Your task to perform on an android device: What's the weather today? Image 0: 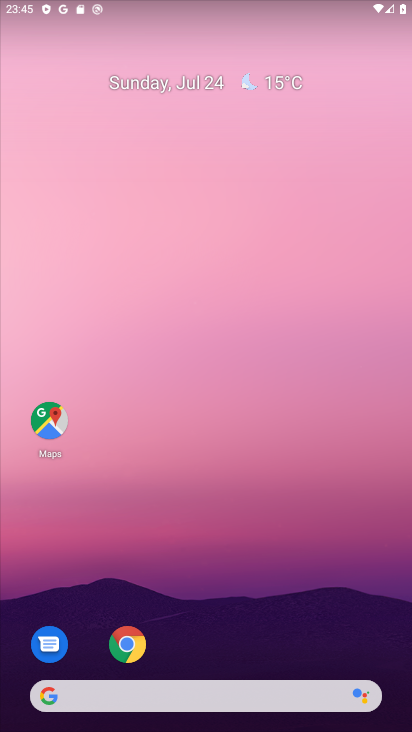
Step 0: drag from (203, 726) to (225, 171)
Your task to perform on an android device: What's the weather today? Image 1: 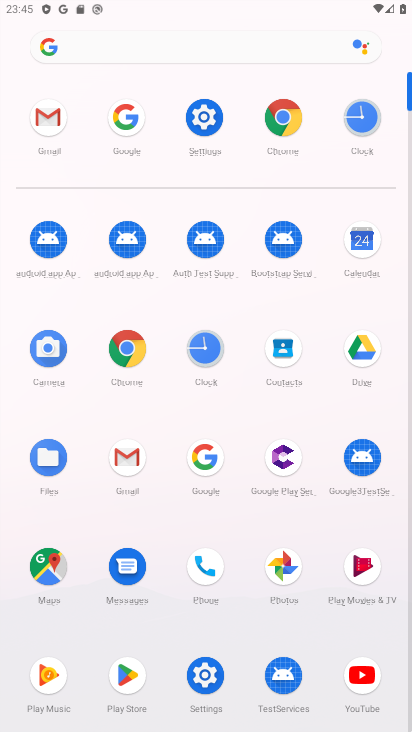
Step 1: click (212, 458)
Your task to perform on an android device: What's the weather today? Image 2: 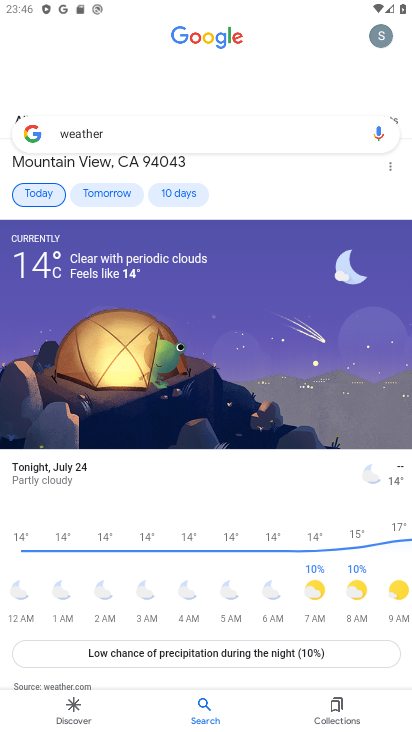
Step 2: click (39, 192)
Your task to perform on an android device: What's the weather today? Image 3: 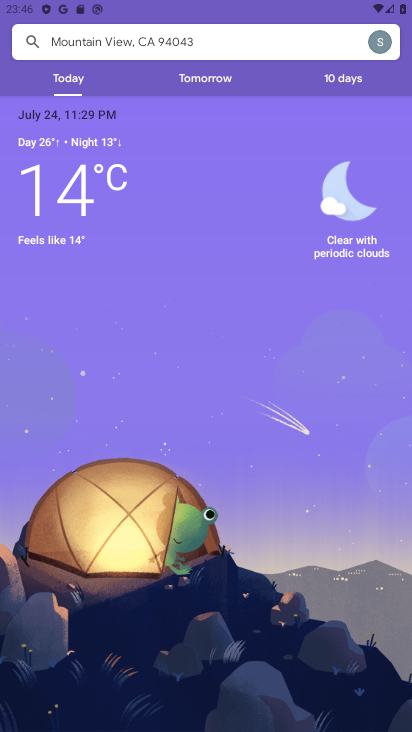
Step 3: task complete